Your task to perform on an android device: turn off javascript in the chrome app Image 0: 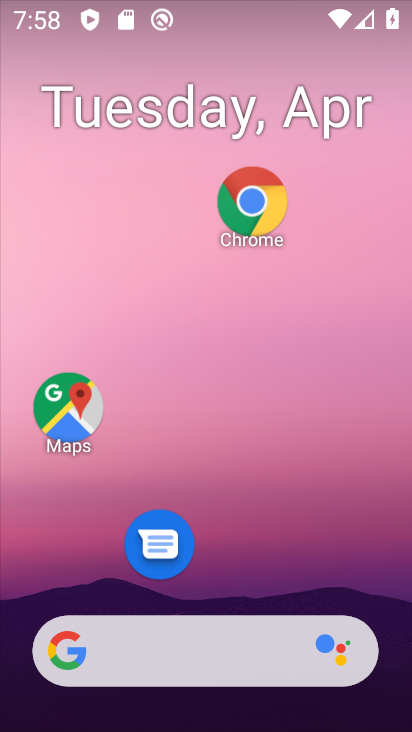
Step 0: click (272, 205)
Your task to perform on an android device: turn off javascript in the chrome app Image 1: 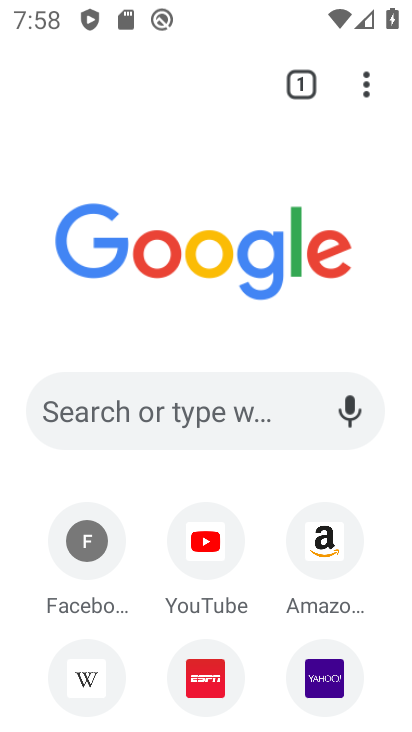
Step 1: click (367, 83)
Your task to perform on an android device: turn off javascript in the chrome app Image 2: 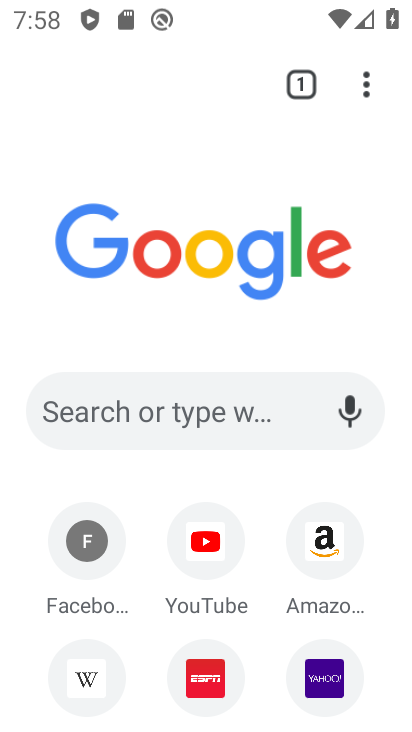
Step 2: click (368, 81)
Your task to perform on an android device: turn off javascript in the chrome app Image 3: 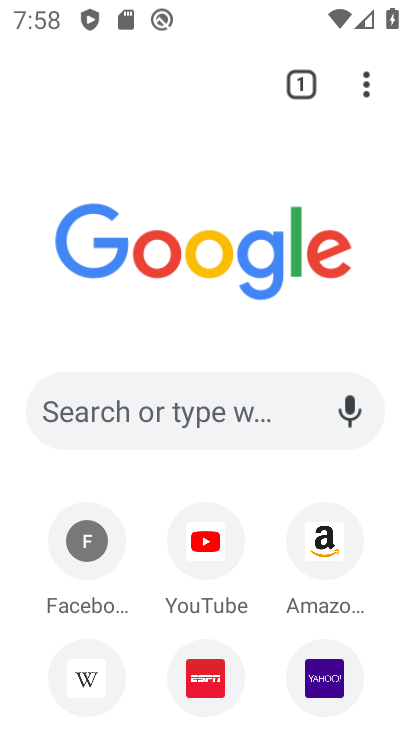
Step 3: click (371, 99)
Your task to perform on an android device: turn off javascript in the chrome app Image 4: 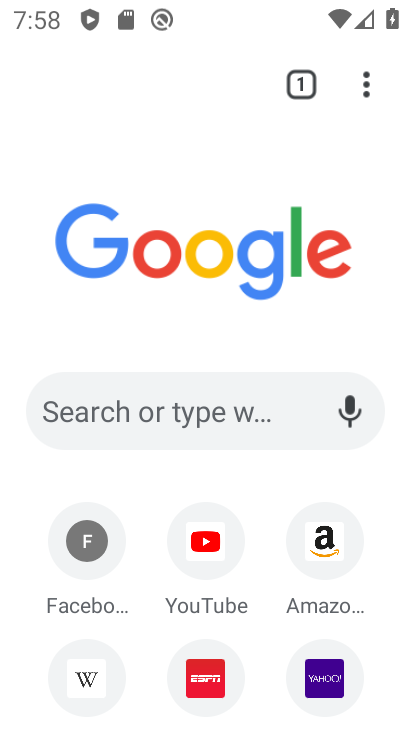
Step 4: drag from (357, 88) to (167, 605)
Your task to perform on an android device: turn off javascript in the chrome app Image 5: 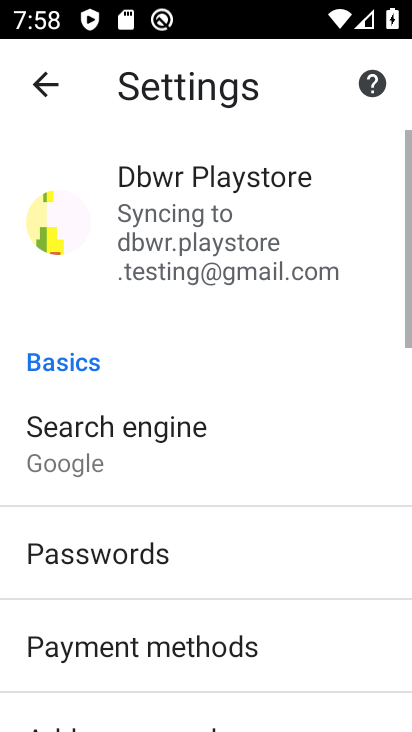
Step 5: drag from (102, 651) to (268, 91)
Your task to perform on an android device: turn off javascript in the chrome app Image 6: 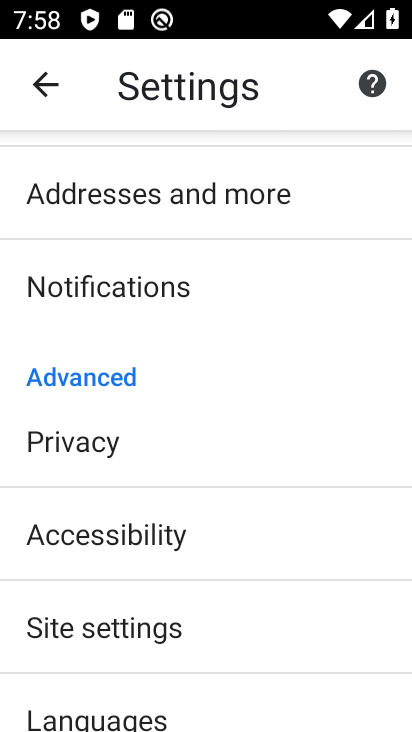
Step 6: click (131, 617)
Your task to perform on an android device: turn off javascript in the chrome app Image 7: 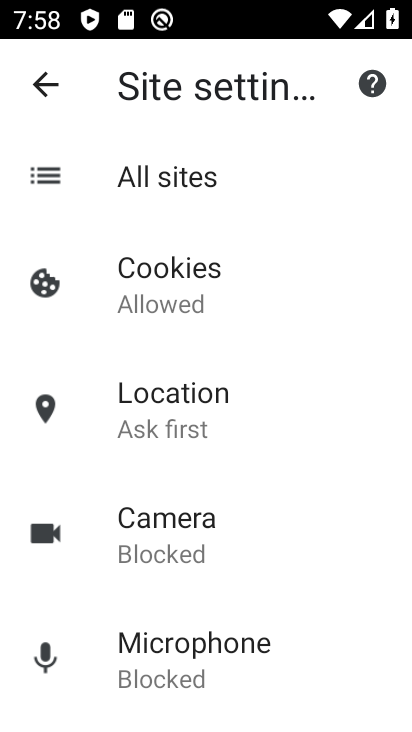
Step 7: drag from (179, 600) to (314, 97)
Your task to perform on an android device: turn off javascript in the chrome app Image 8: 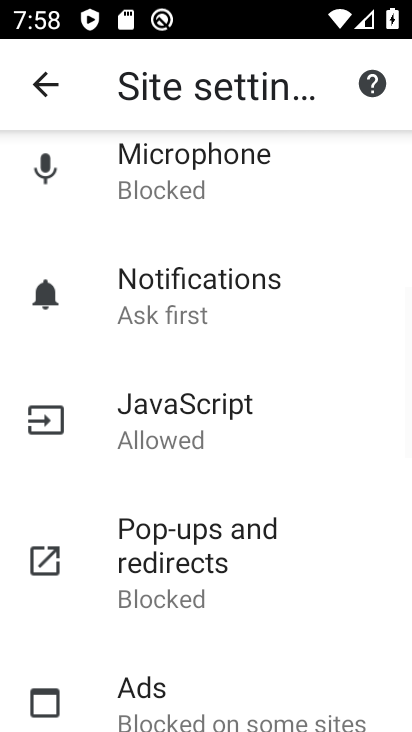
Step 8: click (248, 411)
Your task to perform on an android device: turn off javascript in the chrome app Image 9: 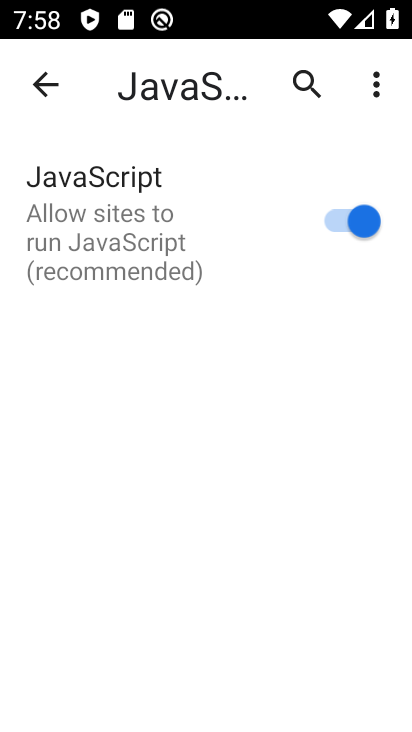
Step 9: click (352, 217)
Your task to perform on an android device: turn off javascript in the chrome app Image 10: 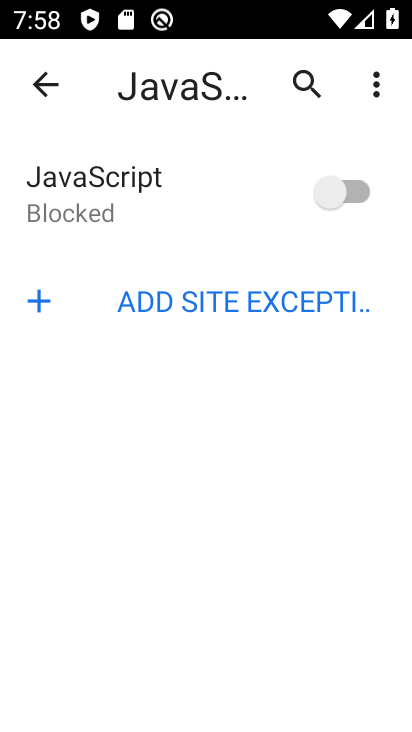
Step 10: task complete